Your task to perform on an android device: turn off smart reply in the gmail app Image 0: 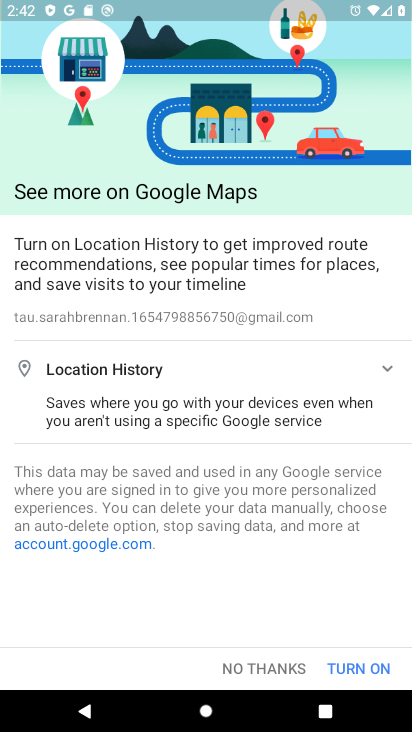
Step 0: press home button
Your task to perform on an android device: turn off smart reply in the gmail app Image 1: 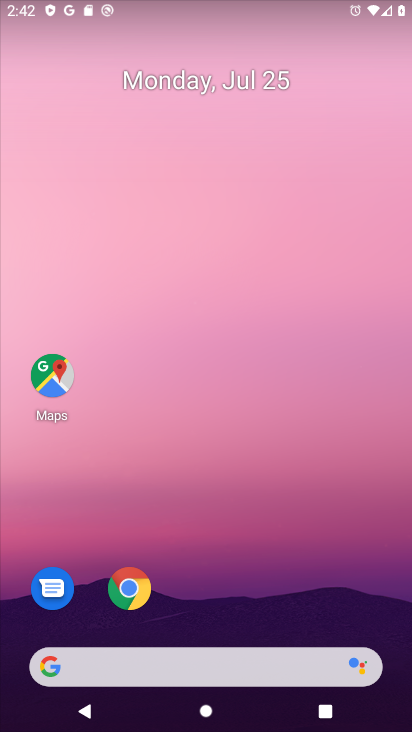
Step 1: drag from (207, 632) to (219, 1)
Your task to perform on an android device: turn off smart reply in the gmail app Image 2: 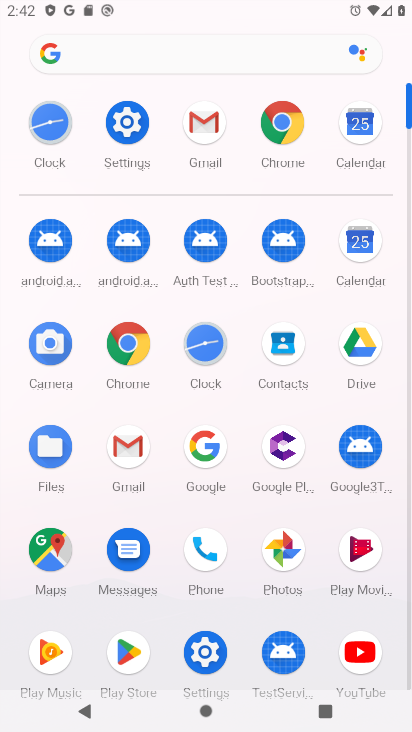
Step 2: click (202, 114)
Your task to perform on an android device: turn off smart reply in the gmail app Image 3: 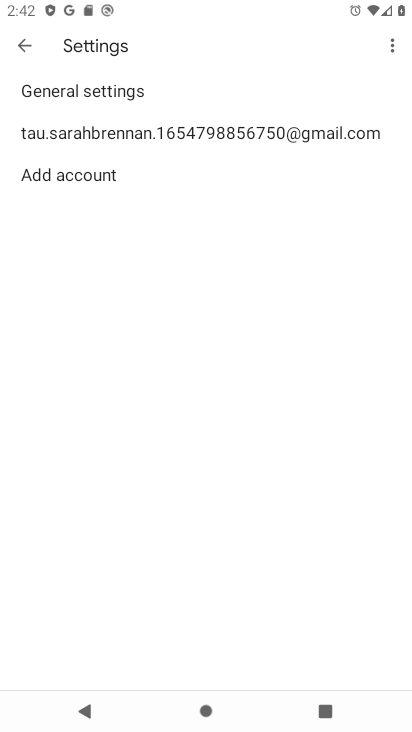
Step 3: click (137, 132)
Your task to perform on an android device: turn off smart reply in the gmail app Image 4: 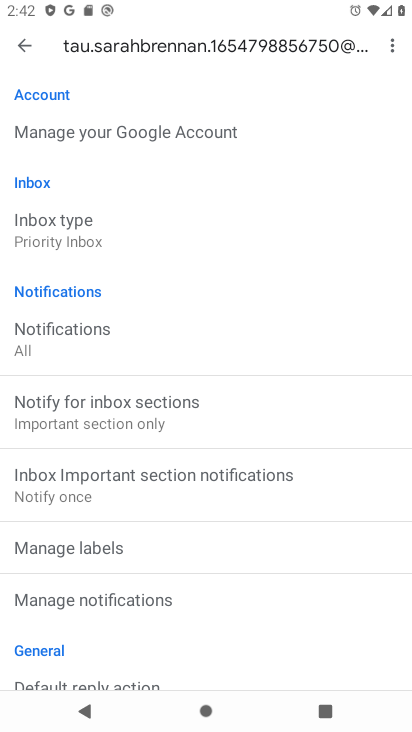
Step 4: drag from (195, 636) to (210, 91)
Your task to perform on an android device: turn off smart reply in the gmail app Image 5: 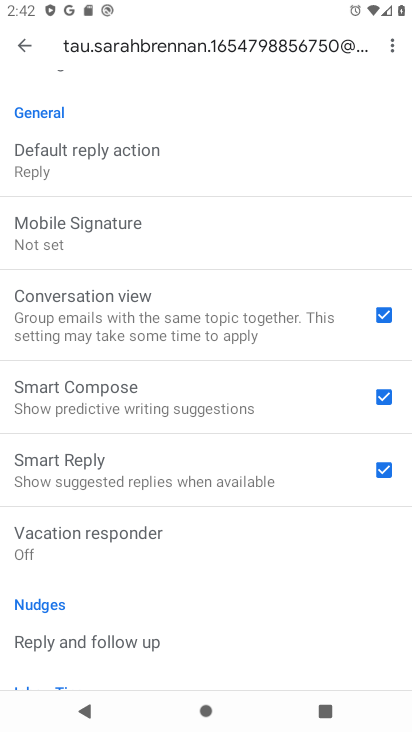
Step 5: click (380, 466)
Your task to perform on an android device: turn off smart reply in the gmail app Image 6: 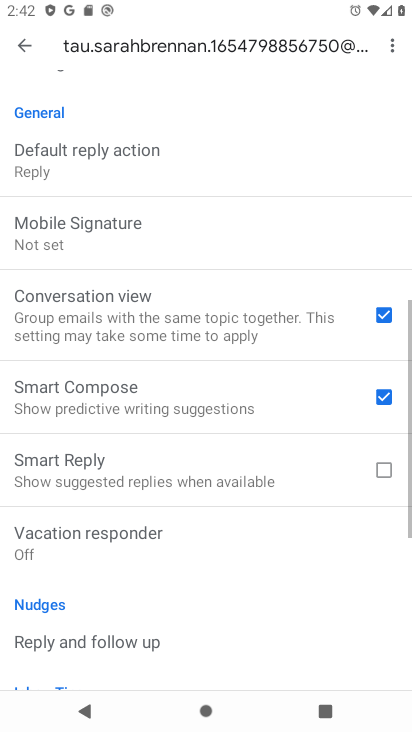
Step 6: task complete